Your task to perform on an android device: Open calendar and show me the second week of next month Image 0: 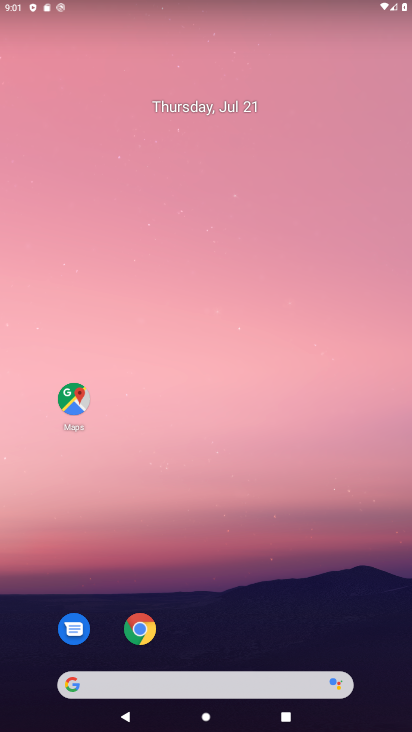
Step 0: drag from (348, 573) to (141, 32)
Your task to perform on an android device: Open calendar and show me the second week of next month Image 1: 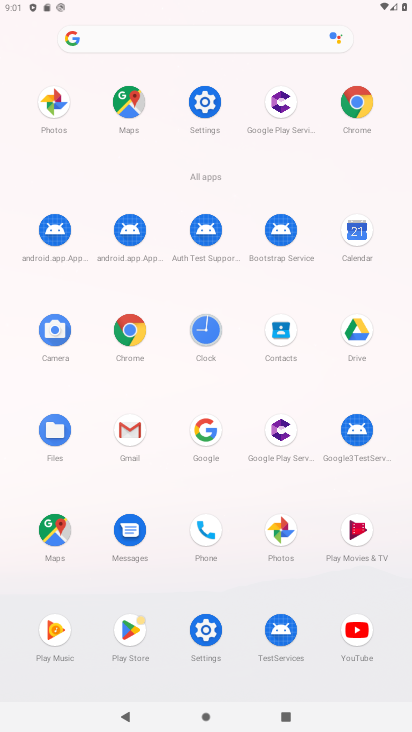
Step 1: click (347, 233)
Your task to perform on an android device: Open calendar and show me the second week of next month Image 2: 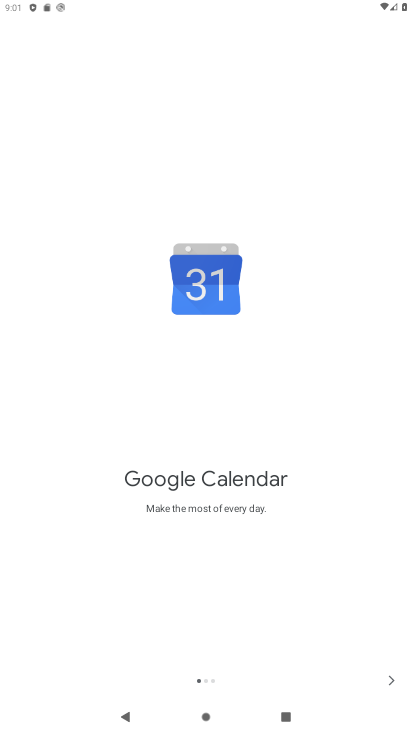
Step 2: click (393, 688)
Your task to perform on an android device: Open calendar and show me the second week of next month Image 3: 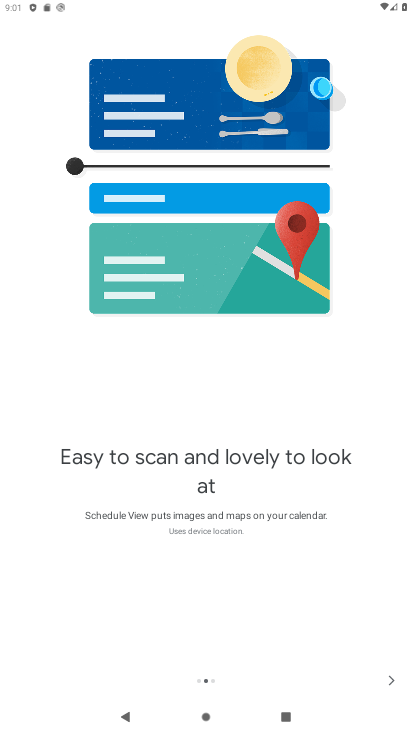
Step 3: click (393, 688)
Your task to perform on an android device: Open calendar and show me the second week of next month Image 4: 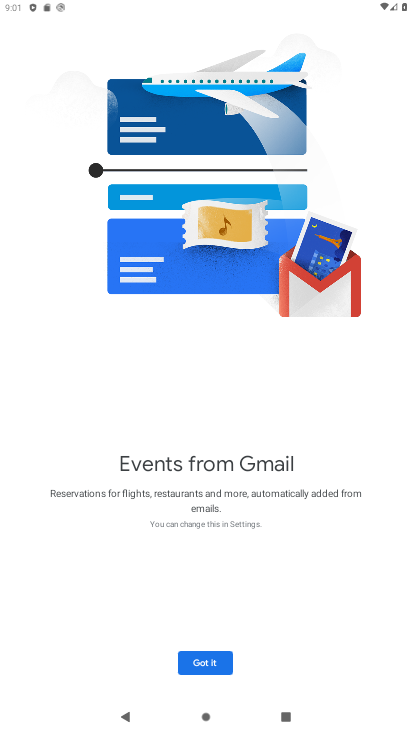
Step 4: click (215, 668)
Your task to perform on an android device: Open calendar and show me the second week of next month Image 5: 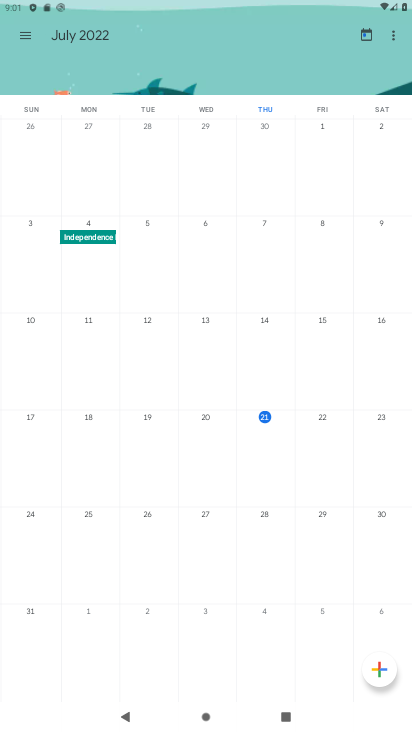
Step 5: drag from (393, 420) to (3, 485)
Your task to perform on an android device: Open calendar and show me the second week of next month Image 6: 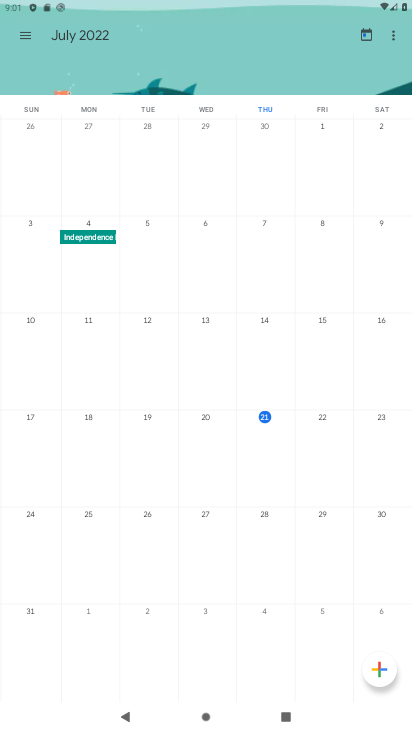
Step 6: drag from (405, 446) to (3, 462)
Your task to perform on an android device: Open calendar and show me the second week of next month Image 7: 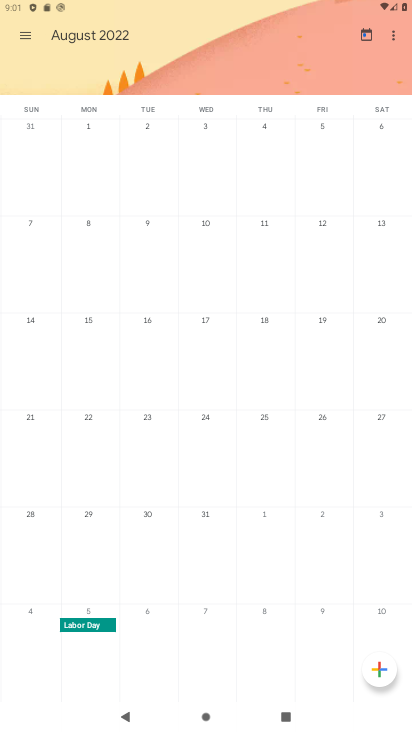
Step 7: click (51, 242)
Your task to perform on an android device: Open calendar and show me the second week of next month Image 8: 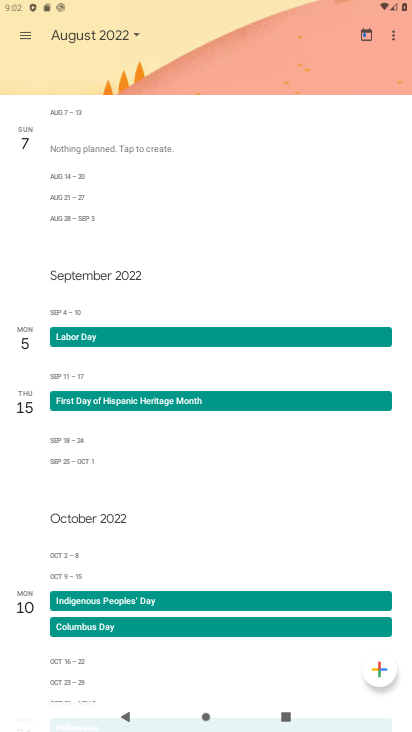
Step 8: task complete